Your task to perform on an android device: uninstall "Walmart Shopping & Grocery" Image 0: 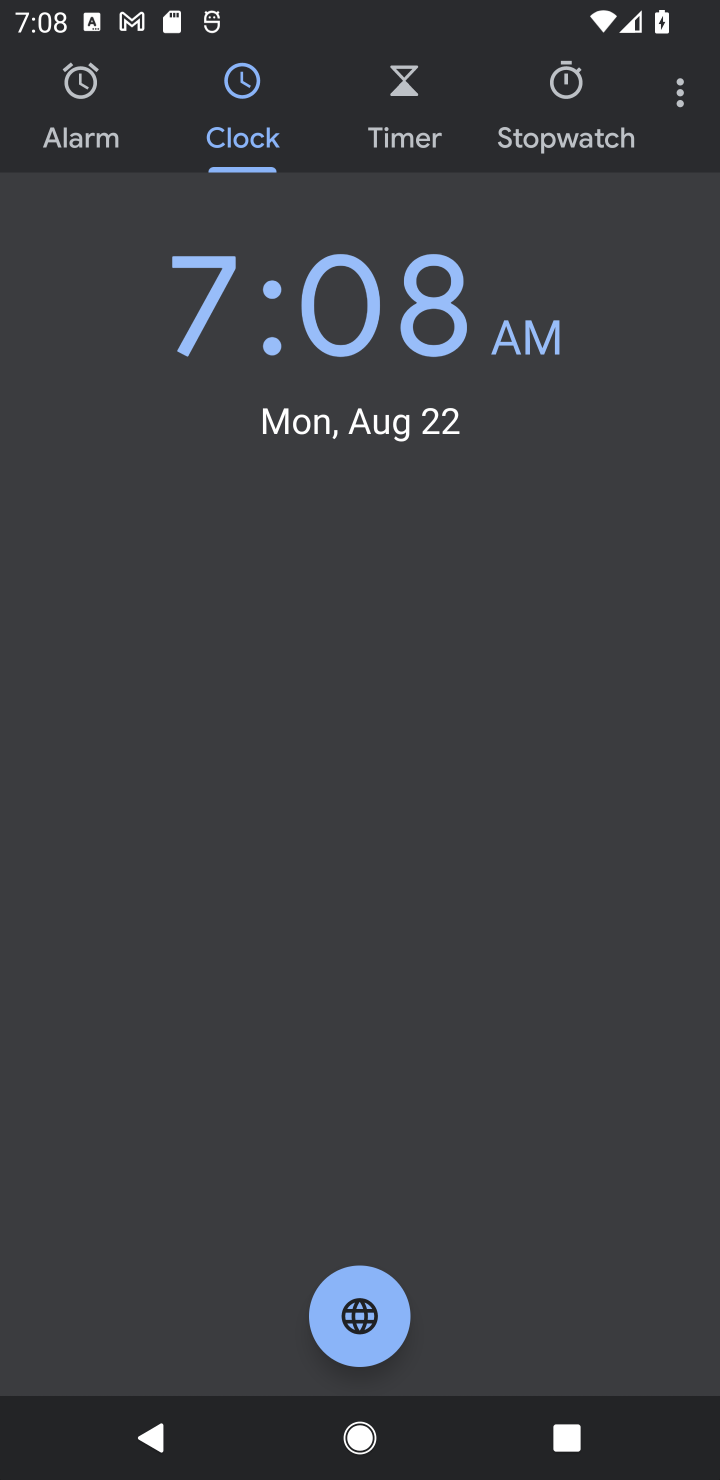
Step 0: press home button
Your task to perform on an android device: uninstall "Walmart Shopping & Grocery" Image 1: 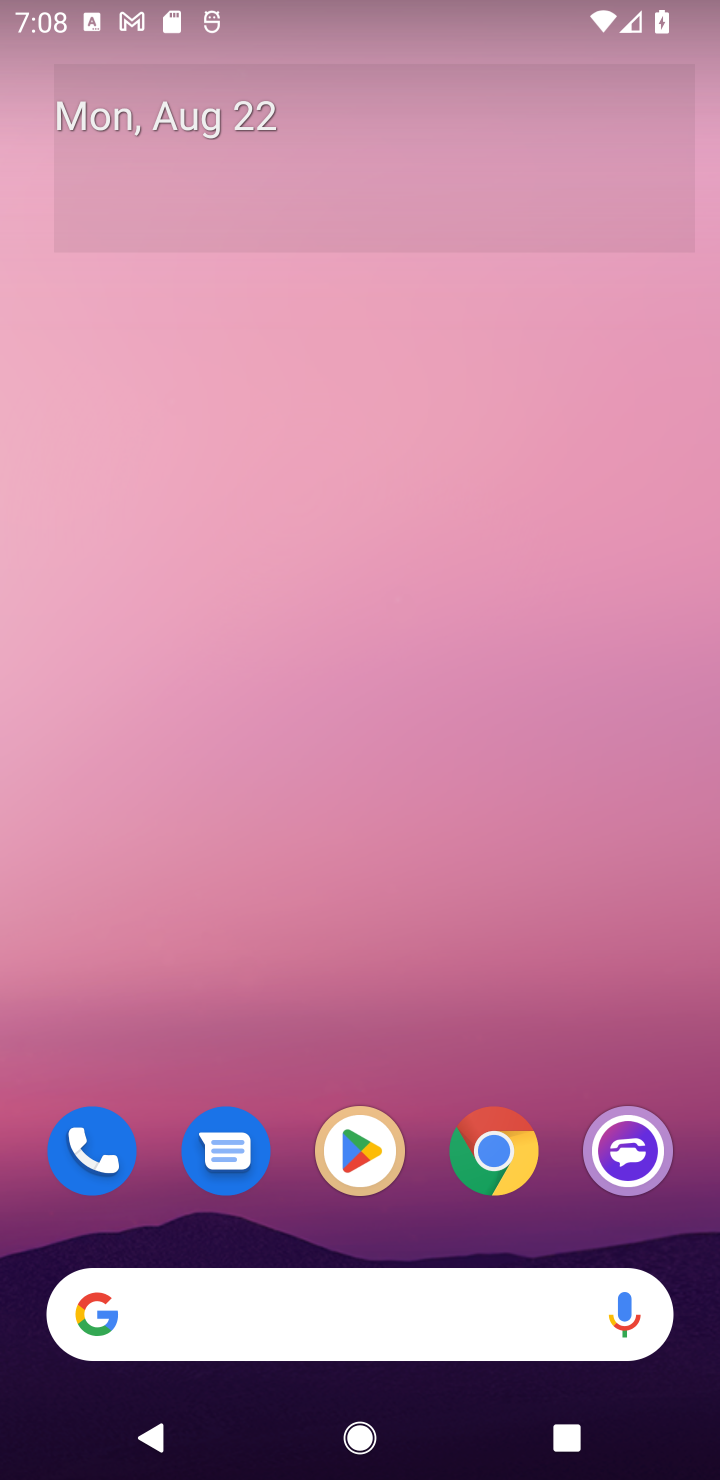
Step 1: click (335, 1146)
Your task to perform on an android device: uninstall "Walmart Shopping & Grocery" Image 2: 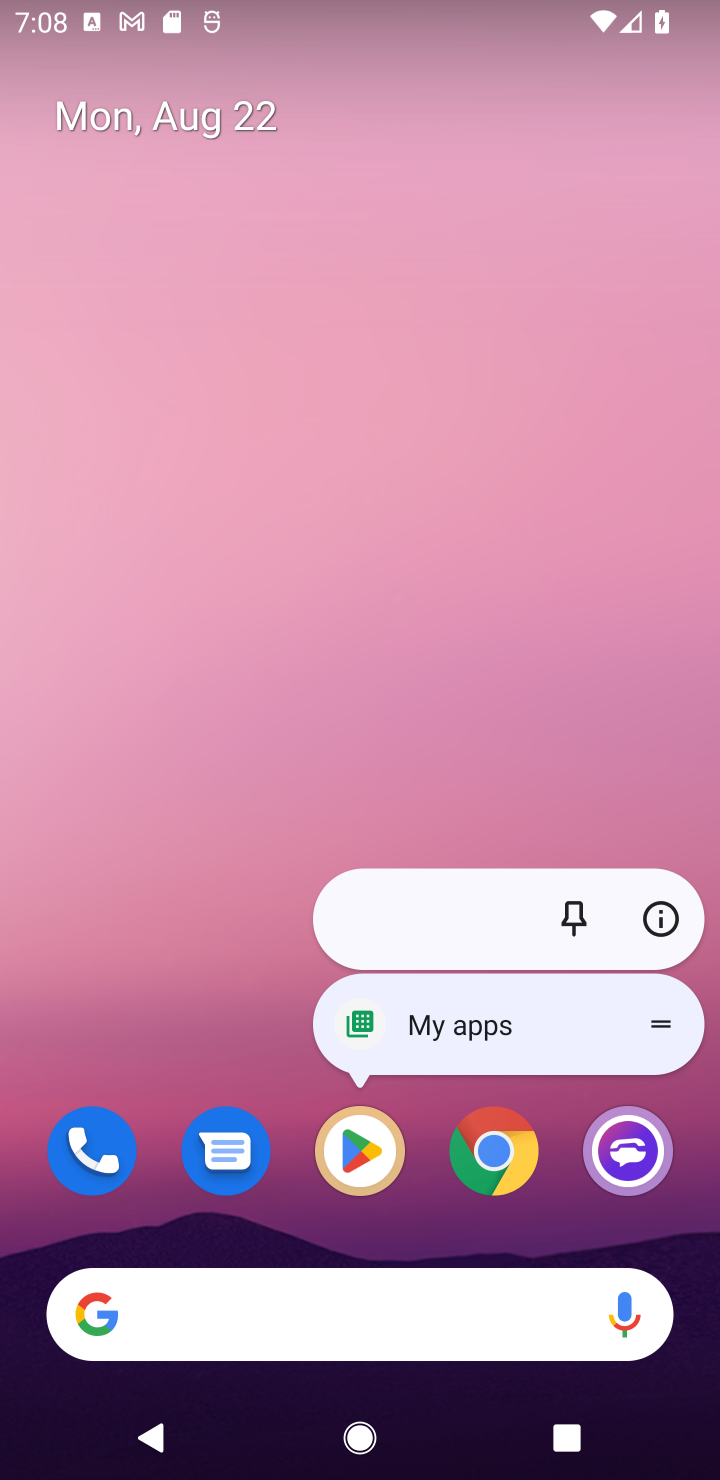
Step 2: click (350, 1144)
Your task to perform on an android device: uninstall "Walmart Shopping & Grocery" Image 3: 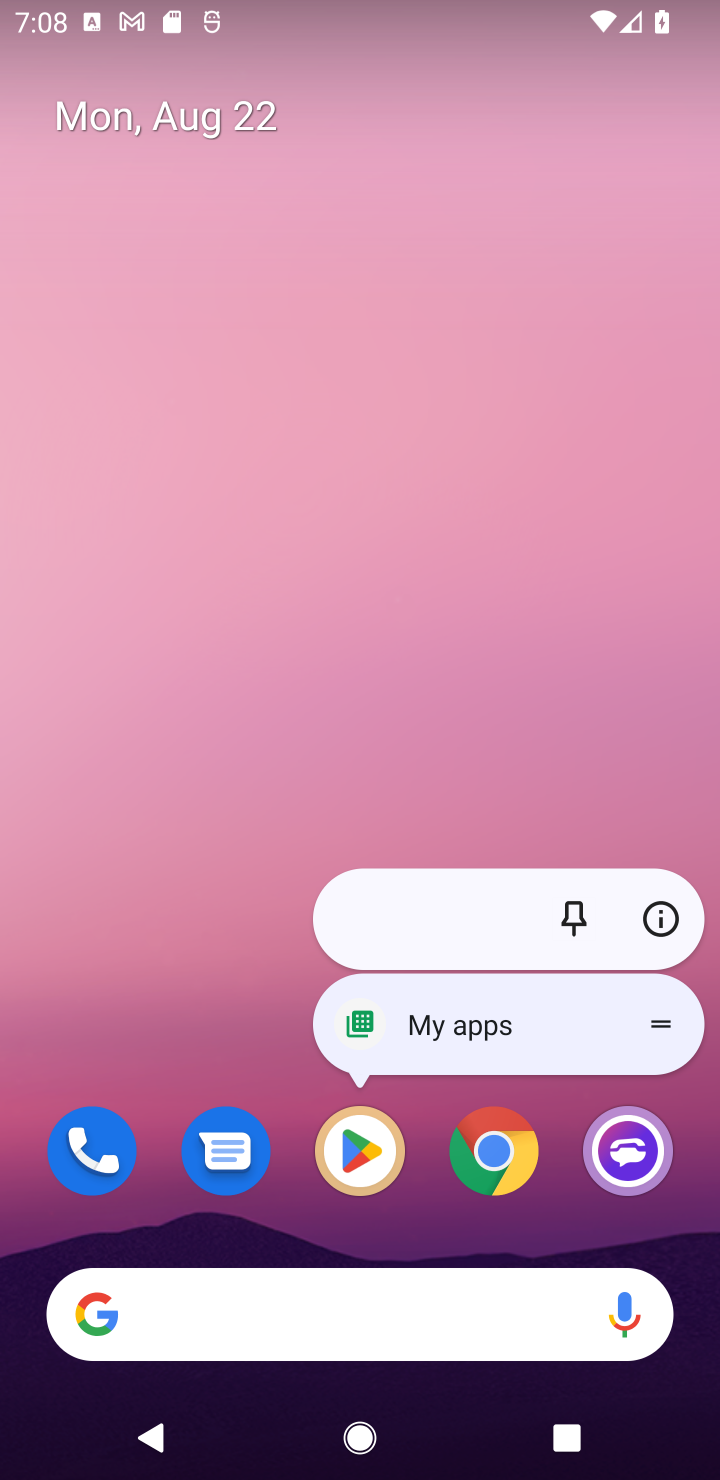
Step 3: click (350, 1159)
Your task to perform on an android device: uninstall "Walmart Shopping & Grocery" Image 4: 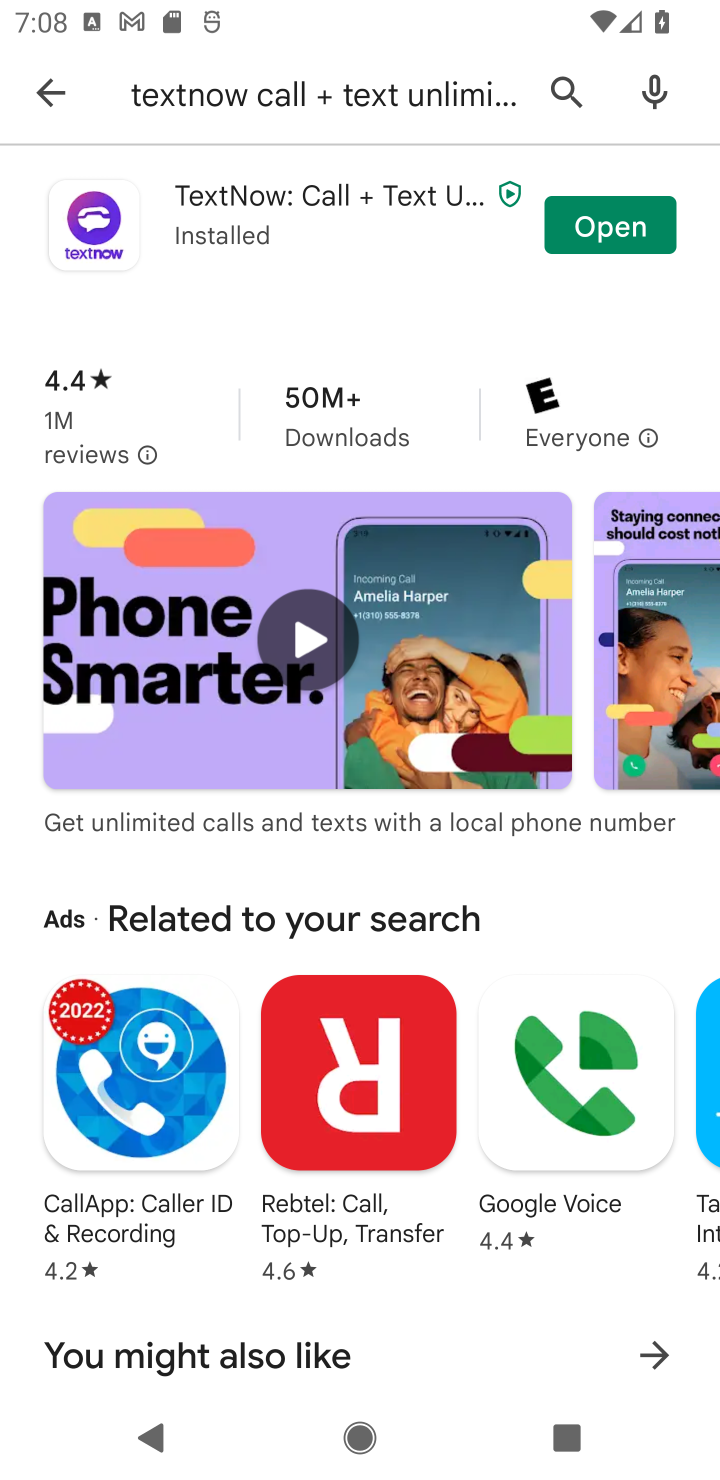
Step 4: click (551, 74)
Your task to perform on an android device: uninstall "Walmart Shopping & Grocery" Image 5: 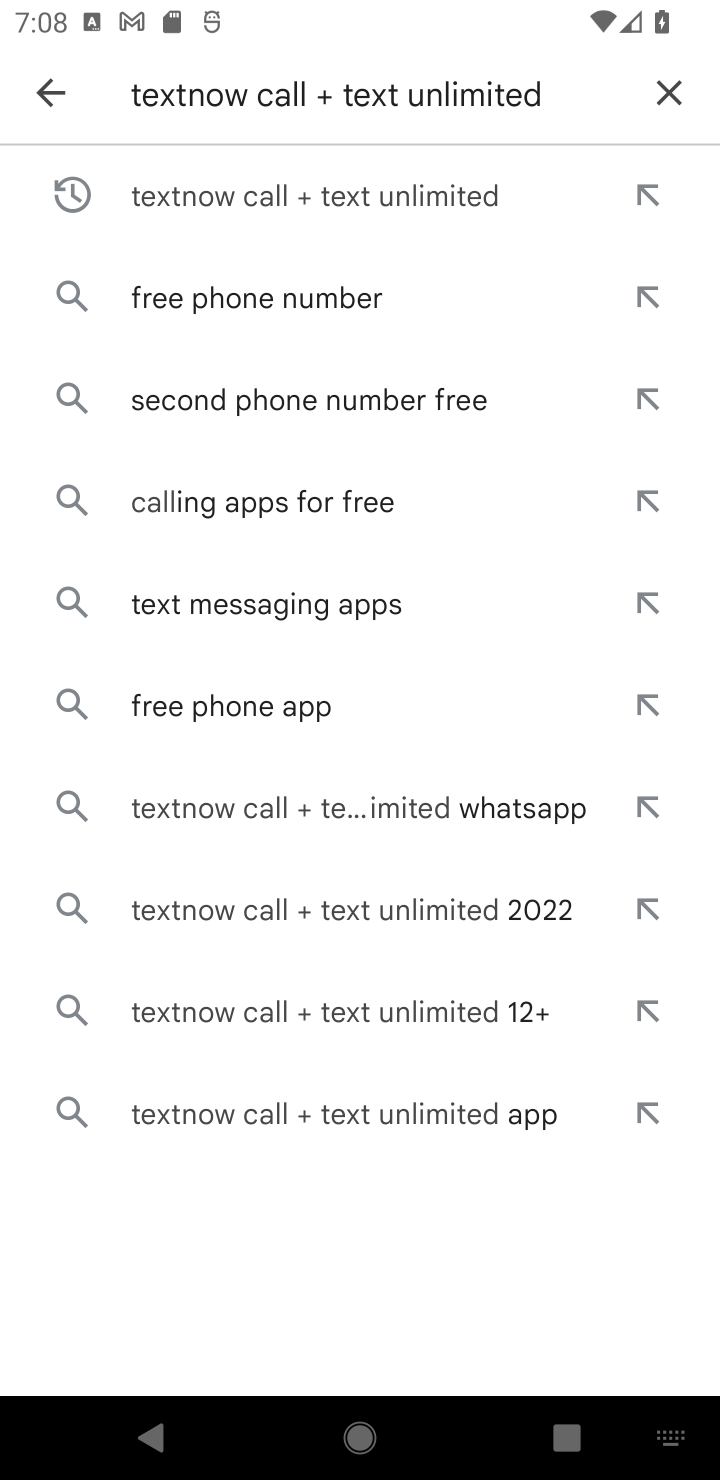
Step 5: click (664, 82)
Your task to perform on an android device: uninstall "Walmart Shopping & Grocery" Image 6: 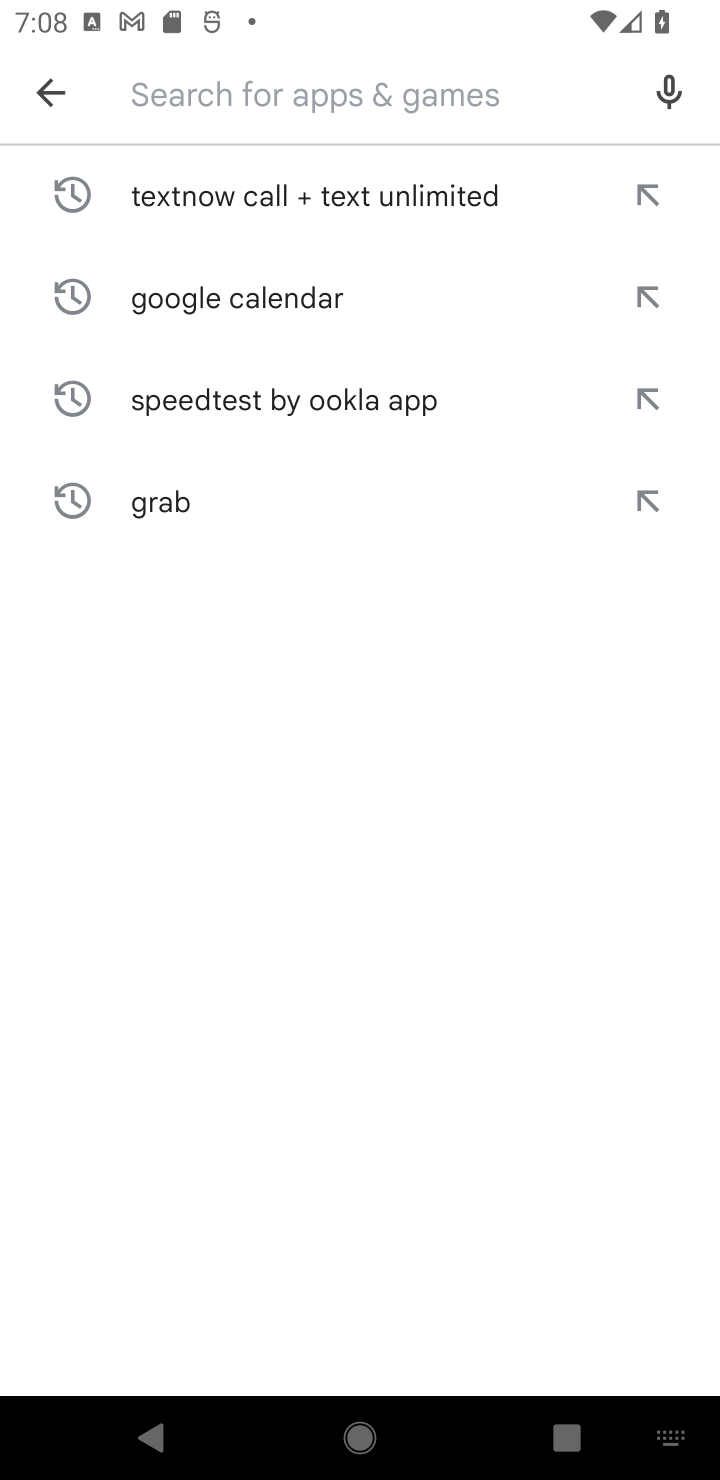
Step 6: type "Walmart Shopping & Grocery"
Your task to perform on an android device: uninstall "Walmart Shopping & Grocery" Image 7: 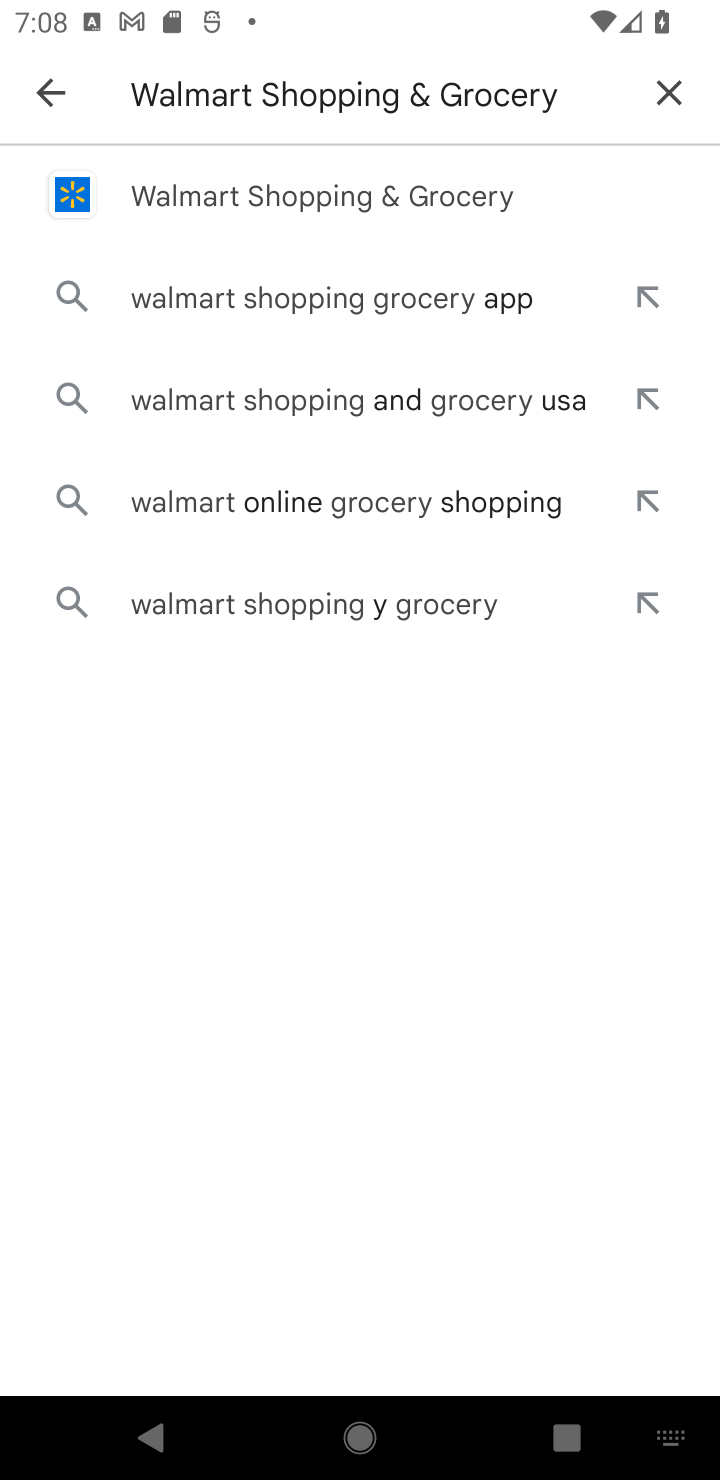
Step 7: click (272, 196)
Your task to perform on an android device: uninstall "Walmart Shopping & Grocery" Image 8: 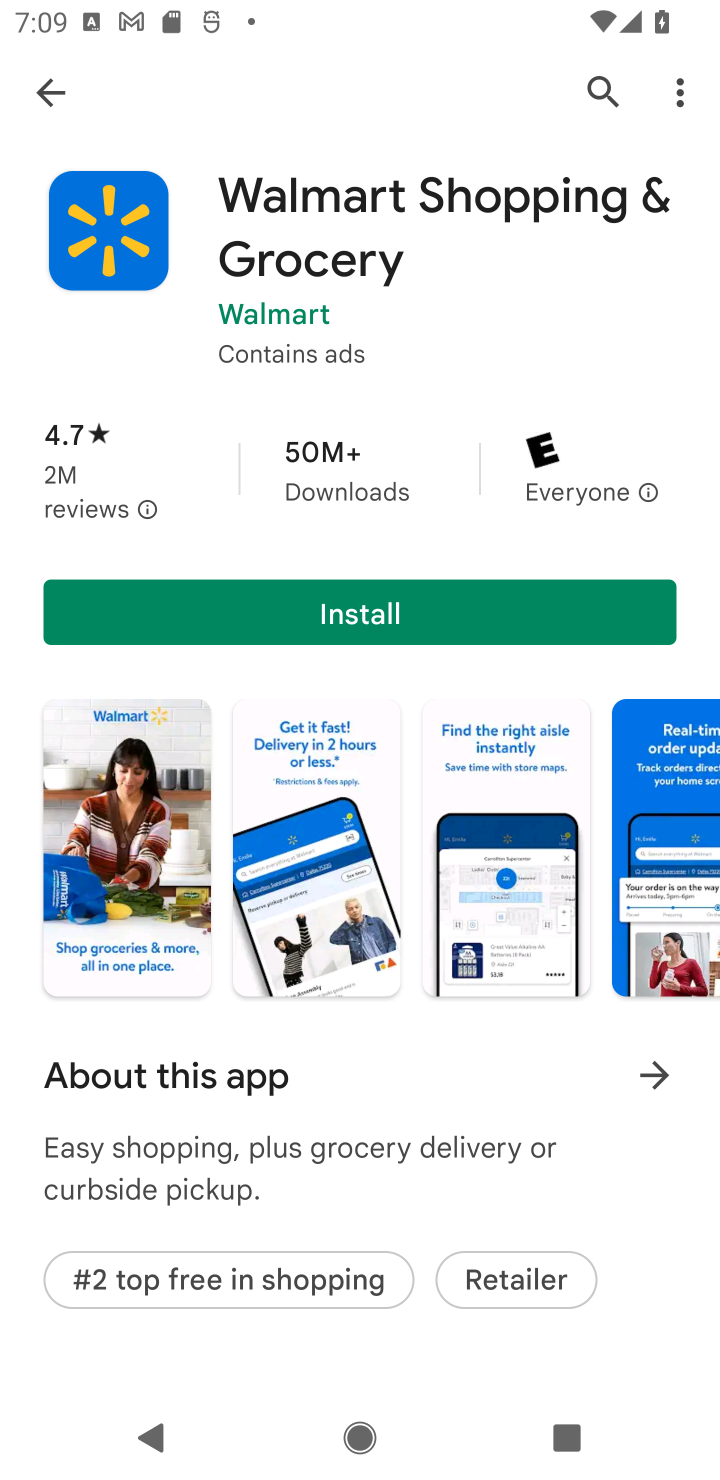
Step 8: task complete